Your task to perform on an android device: remove spam from my inbox in the gmail app Image 0: 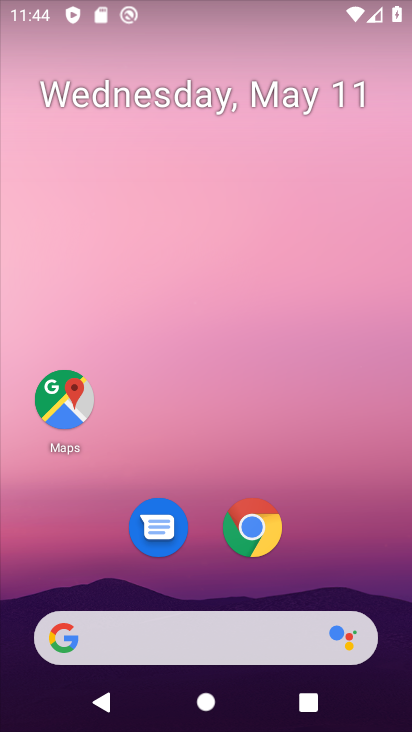
Step 0: drag from (230, 587) to (200, 10)
Your task to perform on an android device: remove spam from my inbox in the gmail app Image 1: 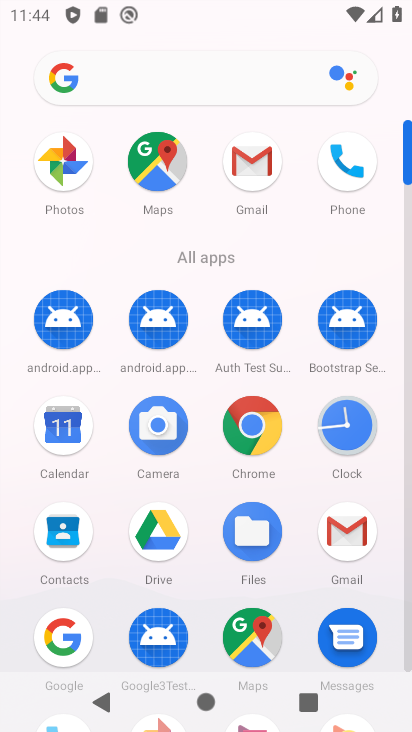
Step 1: click (350, 533)
Your task to perform on an android device: remove spam from my inbox in the gmail app Image 2: 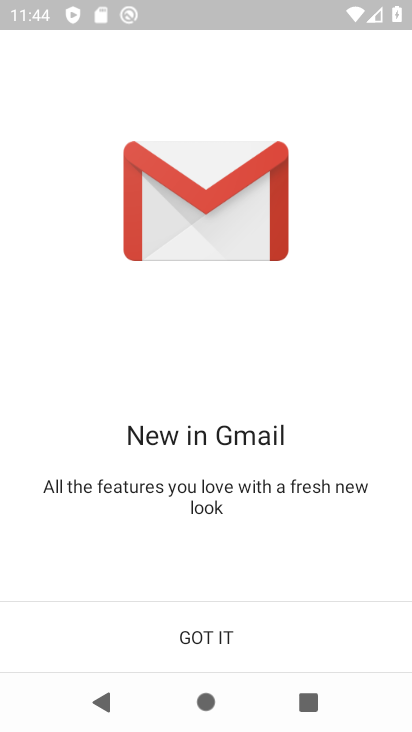
Step 2: click (219, 617)
Your task to perform on an android device: remove spam from my inbox in the gmail app Image 3: 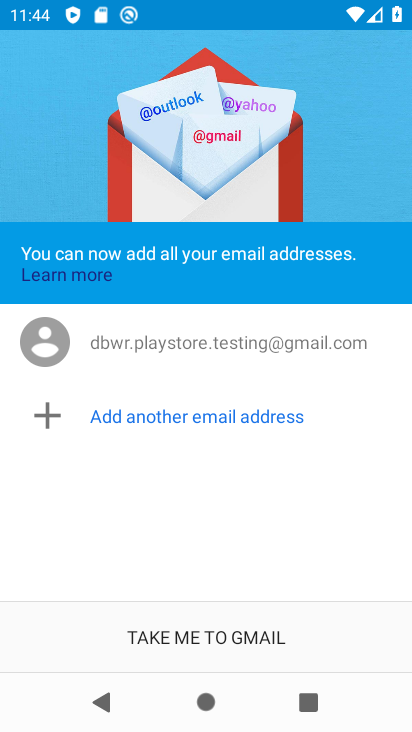
Step 3: click (219, 617)
Your task to perform on an android device: remove spam from my inbox in the gmail app Image 4: 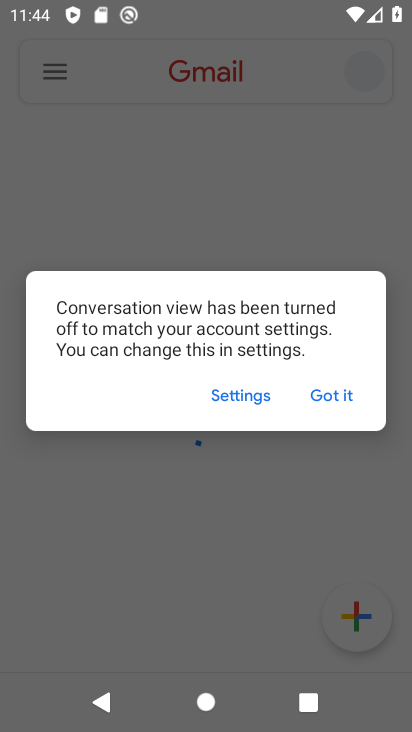
Step 4: click (340, 390)
Your task to perform on an android device: remove spam from my inbox in the gmail app Image 5: 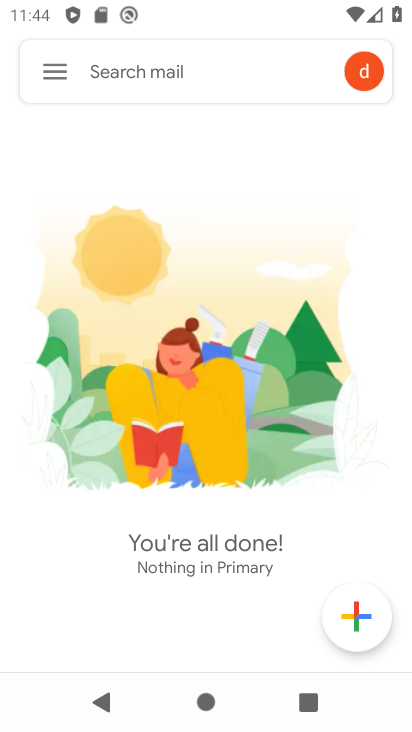
Step 5: click (49, 58)
Your task to perform on an android device: remove spam from my inbox in the gmail app Image 6: 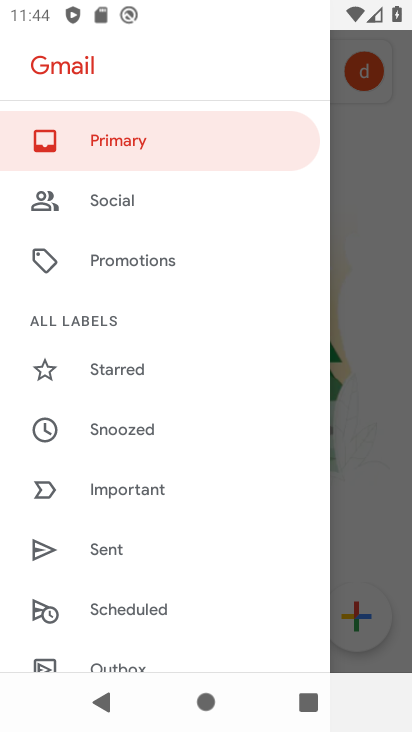
Step 6: drag from (142, 599) to (104, 125)
Your task to perform on an android device: remove spam from my inbox in the gmail app Image 7: 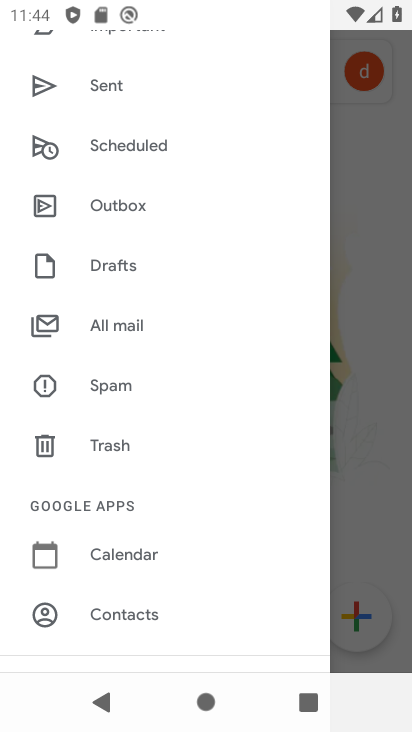
Step 7: click (101, 395)
Your task to perform on an android device: remove spam from my inbox in the gmail app Image 8: 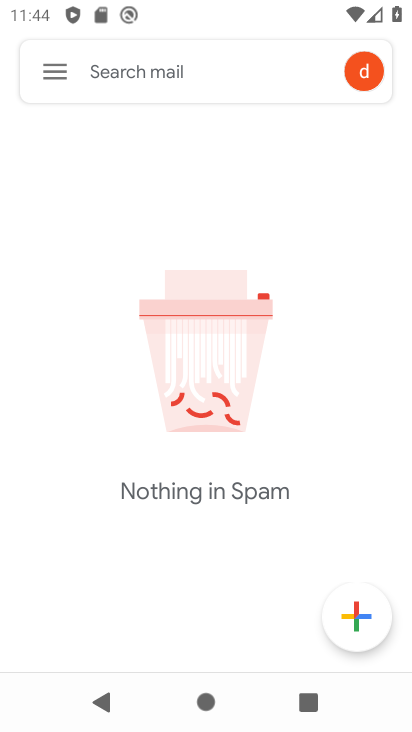
Step 8: task complete